Your task to perform on an android device: Open maps Image 0: 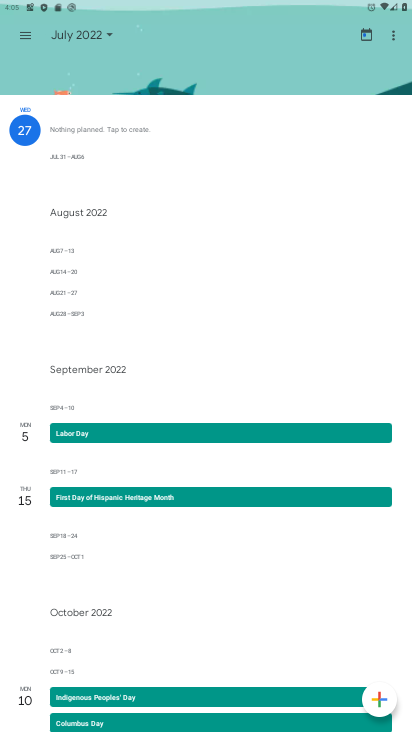
Step 0: press home button
Your task to perform on an android device: Open maps Image 1: 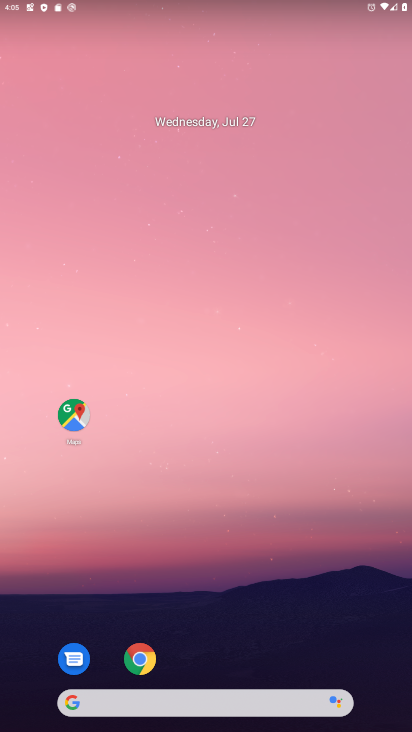
Step 1: click (72, 410)
Your task to perform on an android device: Open maps Image 2: 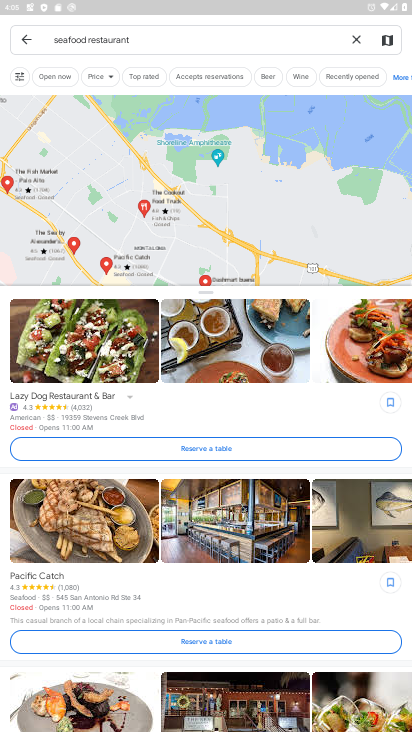
Step 2: task complete